Your task to perform on an android device: make emails show in primary in the gmail app Image 0: 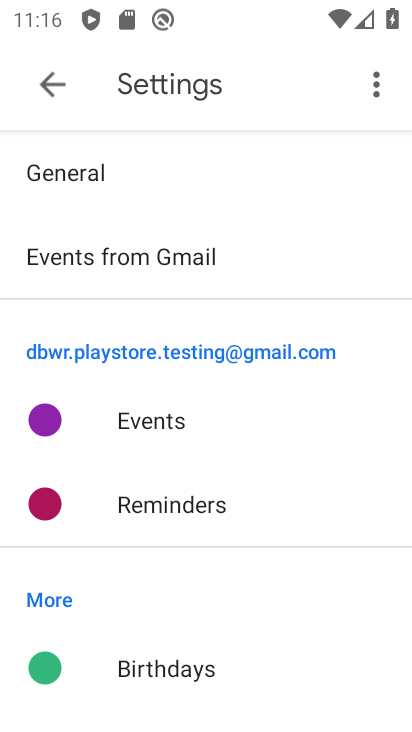
Step 0: press home button
Your task to perform on an android device: make emails show in primary in the gmail app Image 1: 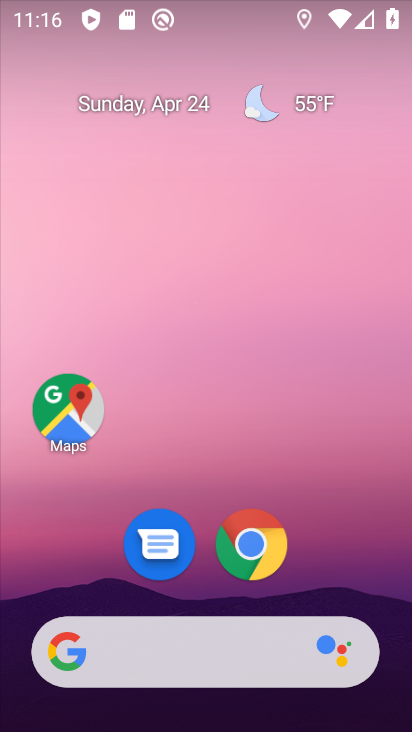
Step 1: drag from (344, 586) to (250, 100)
Your task to perform on an android device: make emails show in primary in the gmail app Image 2: 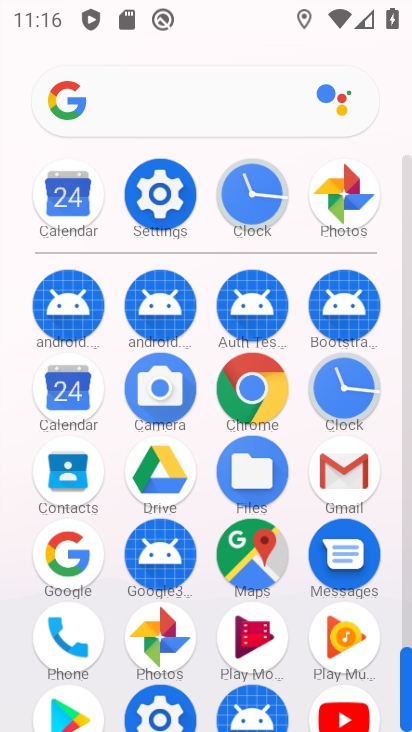
Step 2: click (350, 476)
Your task to perform on an android device: make emails show in primary in the gmail app Image 3: 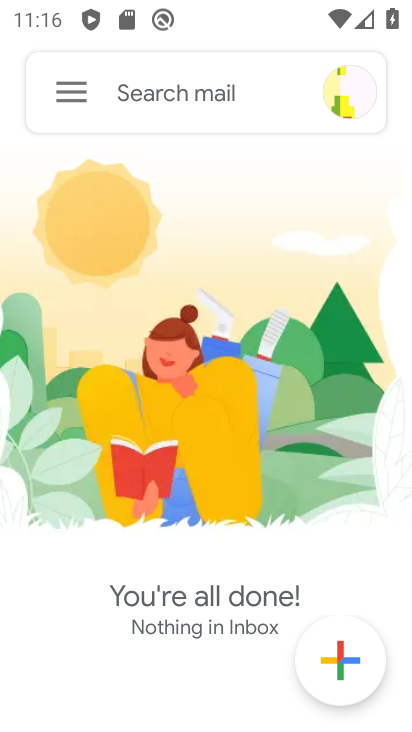
Step 3: click (62, 91)
Your task to perform on an android device: make emails show in primary in the gmail app Image 4: 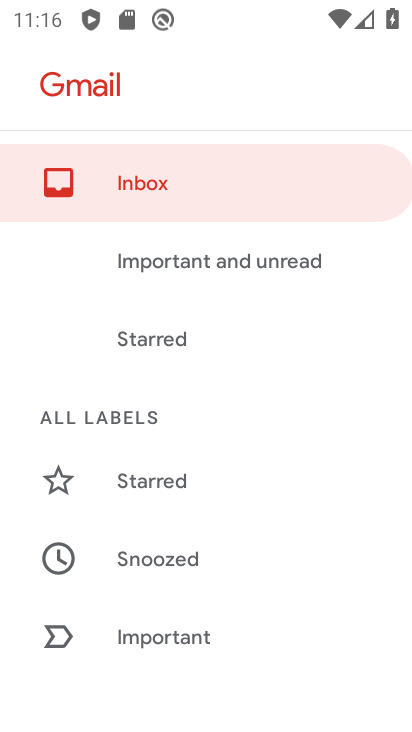
Step 4: drag from (220, 568) to (186, 46)
Your task to perform on an android device: make emails show in primary in the gmail app Image 5: 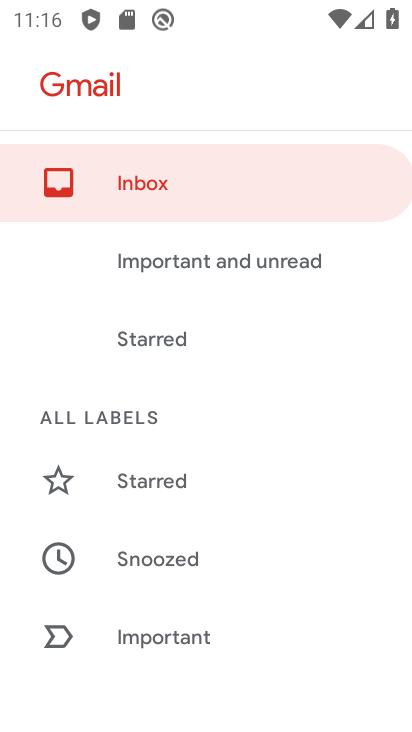
Step 5: drag from (221, 599) to (199, 113)
Your task to perform on an android device: make emails show in primary in the gmail app Image 6: 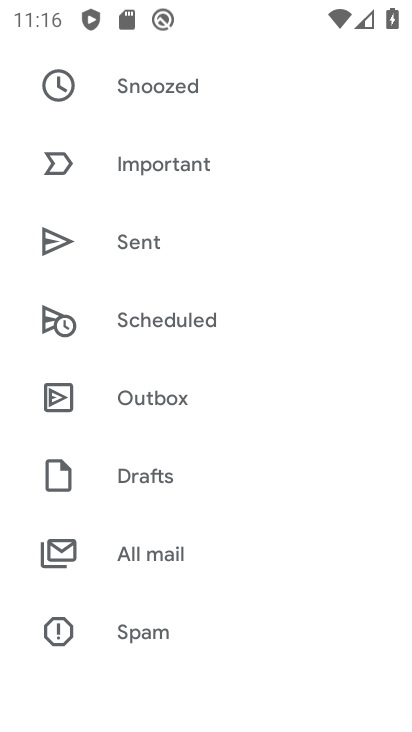
Step 6: drag from (164, 600) to (161, 204)
Your task to perform on an android device: make emails show in primary in the gmail app Image 7: 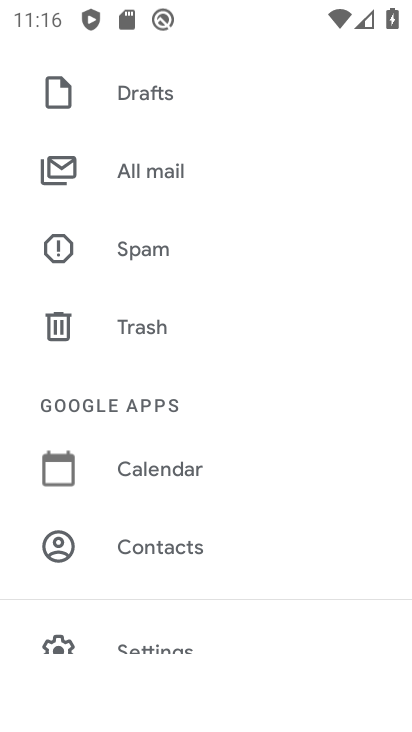
Step 7: drag from (140, 595) to (167, 315)
Your task to perform on an android device: make emails show in primary in the gmail app Image 8: 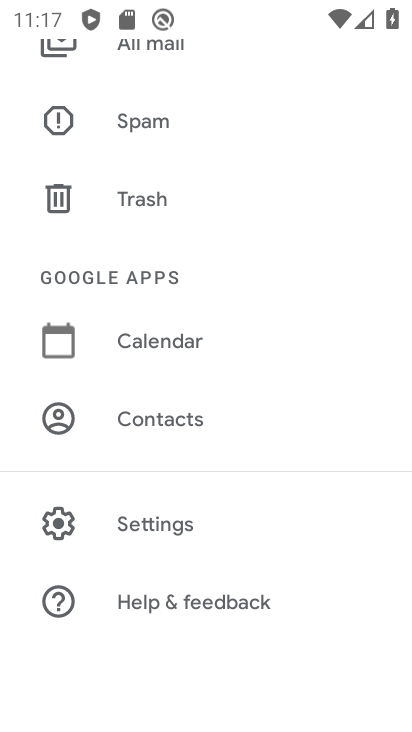
Step 8: click (156, 527)
Your task to perform on an android device: make emails show in primary in the gmail app Image 9: 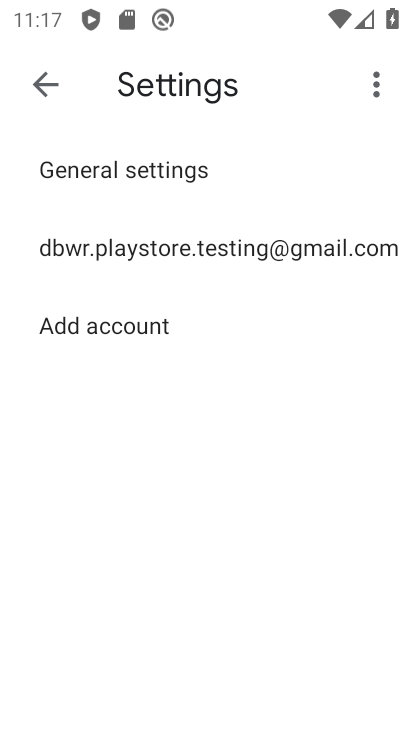
Step 9: click (217, 251)
Your task to perform on an android device: make emails show in primary in the gmail app Image 10: 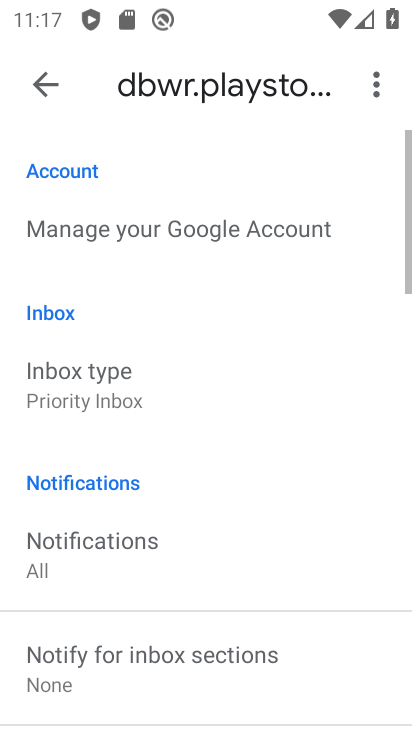
Step 10: click (80, 388)
Your task to perform on an android device: make emails show in primary in the gmail app Image 11: 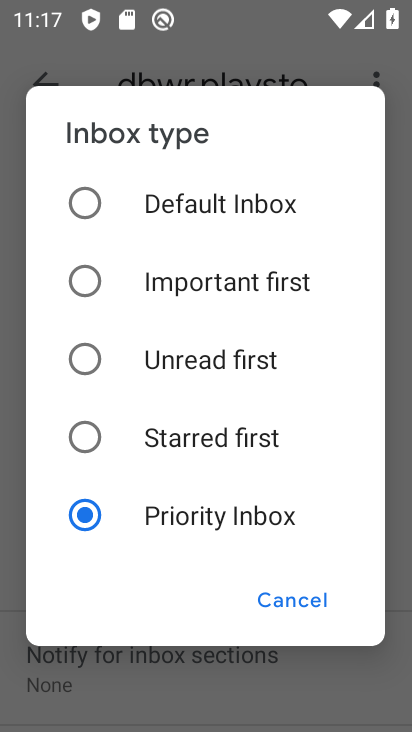
Step 11: click (86, 208)
Your task to perform on an android device: make emails show in primary in the gmail app Image 12: 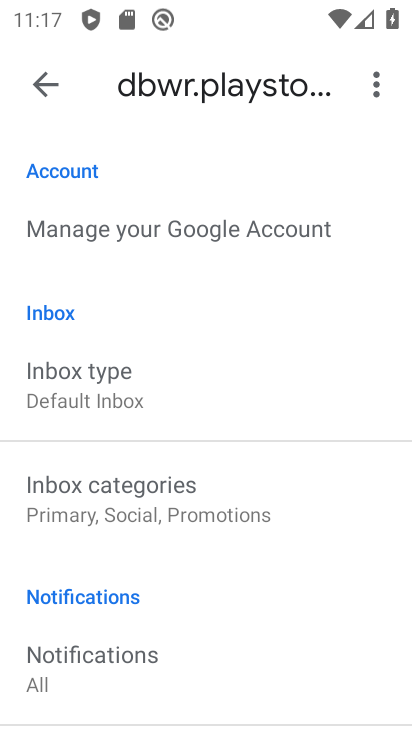
Step 12: press back button
Your task to perform on an android device: make emails show in primary in the gmail app Image 13: 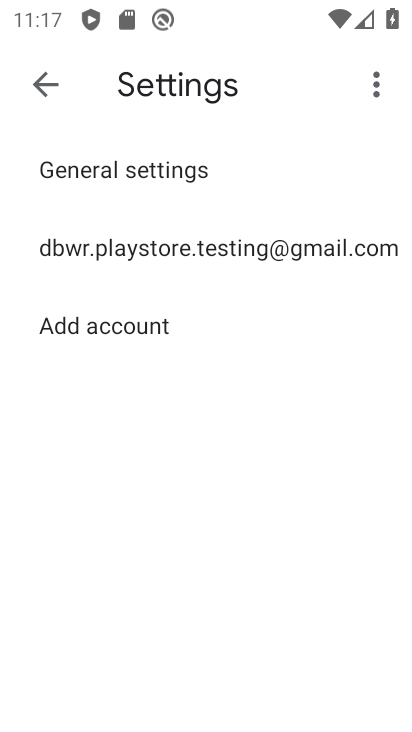
Step 13: press back button
Your task to perform on an android device: make emails show in primary in the gmail app Image 14: 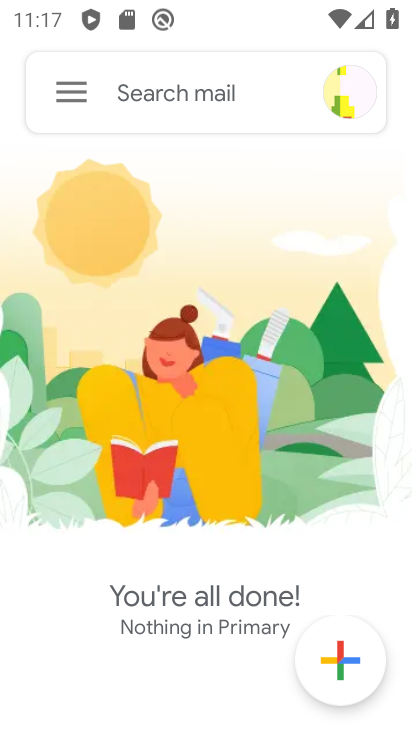
Step 14: click (77, 95)
Your task to perform on an android device: make emails show in primary in the gmail app Image 15: 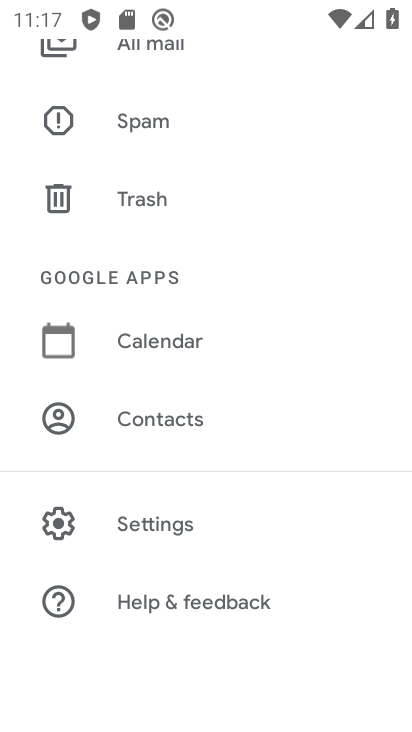
Step 15: task complete